Your task to perform on an android device: turn smart compose on in the gmail app Image 0: 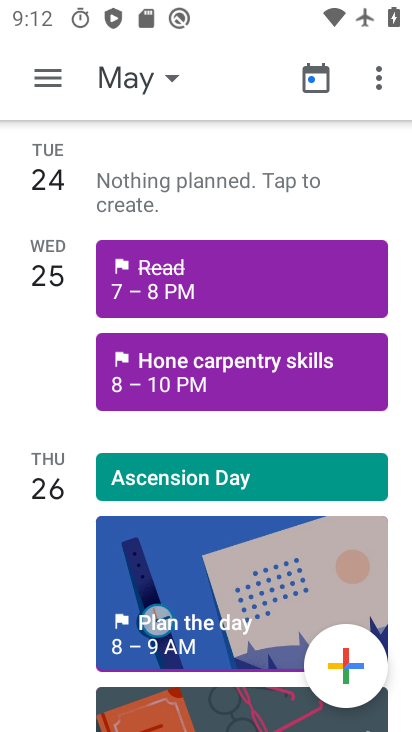
Step 0: press home button
Your task to perform on an android device: turn smart compose on in the gmail app Image 1: 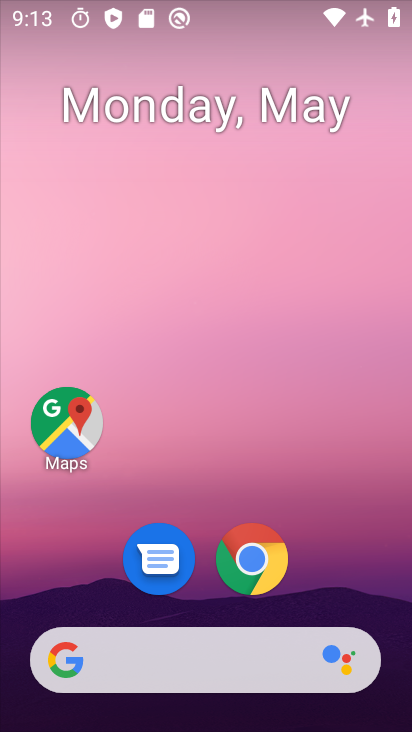
Step 1: drag from (204, 562) to (203, 130)
Your task to perform on an android device: turn smart compose on in the gmail app Image 2: 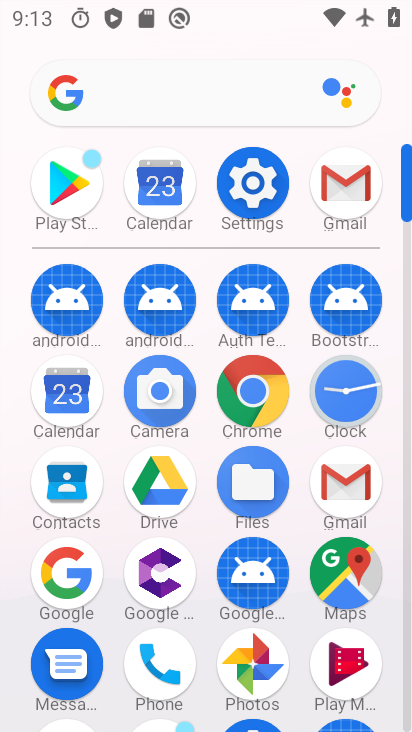
Step 2: click (343, 182)
Your task to perform on an android device: turn smart compose on in the gmail app Image 3: 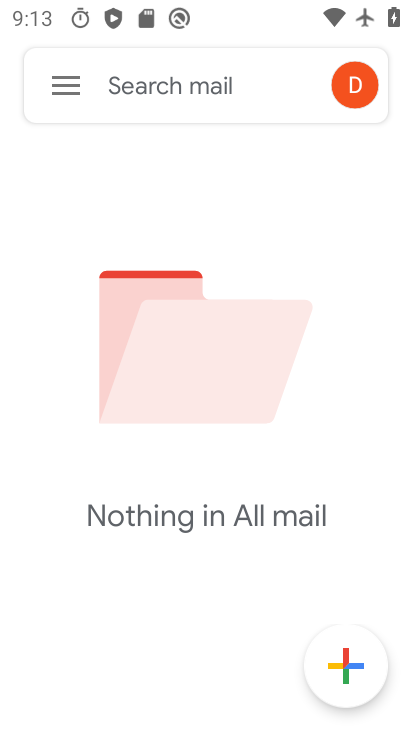
Step 3: click (56, 76)
Your task to perform on an android device: turn smart compose on in the gmail app Image 4: 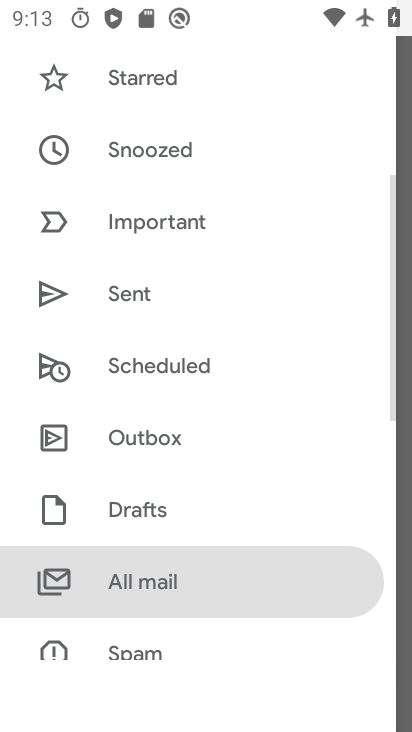
Step 4: drag from (258, 643) to (191, 362)
Your task to perform on an android device: turn smart compose on in the gmail app Image 5: 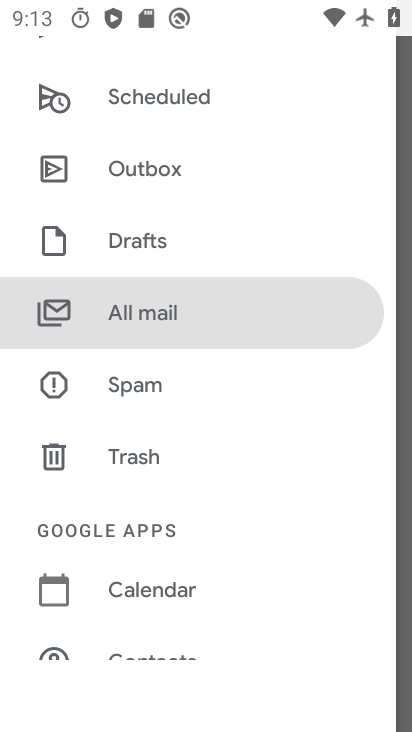
Step 5: drag from (158, 638) to (122, 272)
Your task to perform on an android device: turn smart compose on in the gmail app Image 6: 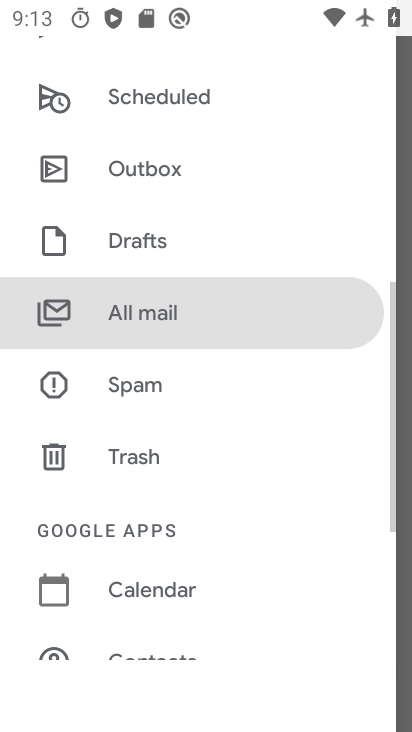
Step 6: drag from (191, 589) to (198, 256)
Your task to perform on an android device: turn smart compose on in the gmail app Image 7: 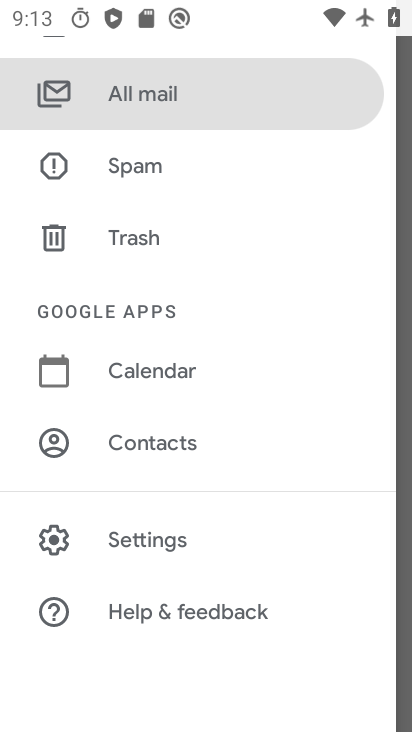
Step 7: click (180, 543)
Your task to perform on an android device: turn smart compose on in the gmail app Image 8: 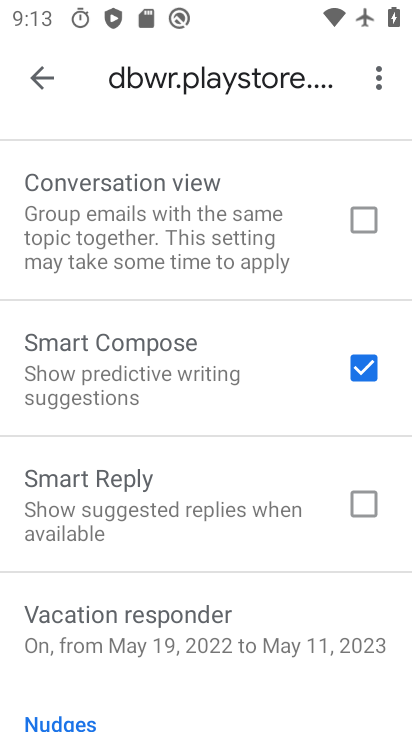
Step 8: task complete